Your task to perform on an android device: change timer sound Image 0: 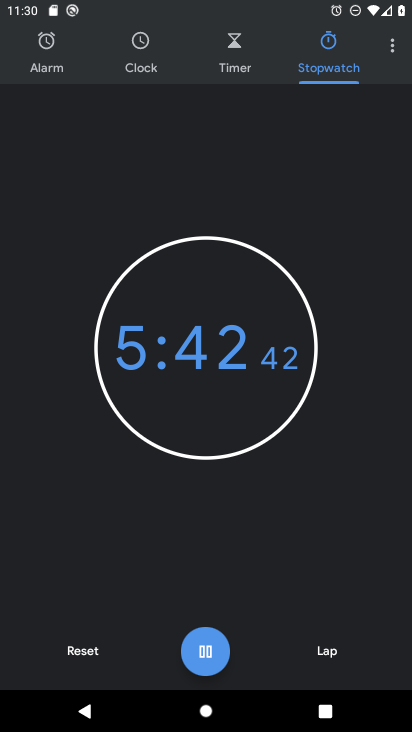
Step 0: press back button
Your task to perform on an android device: change timer sound Image 1: 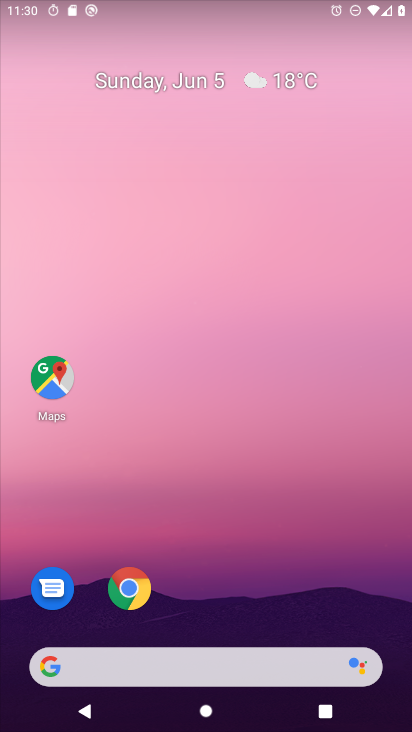
Step 1: drag from (352, 581) to (357, 195)
Your task to perform on an android device: change timer sound Image 2: 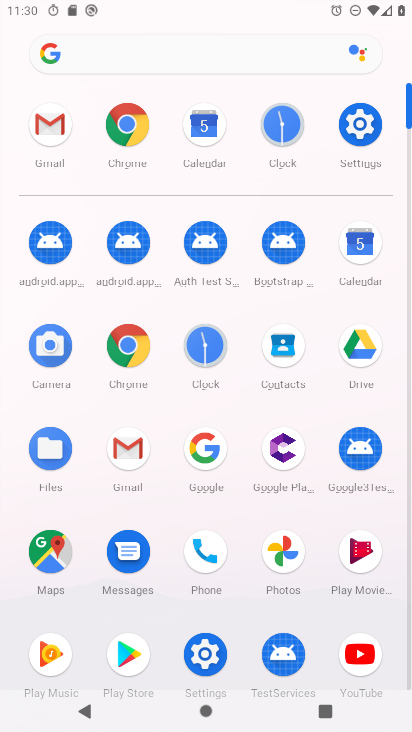
Step 2: click (207, 353)
Your task to perform on an android device: change timer sound Image 3: 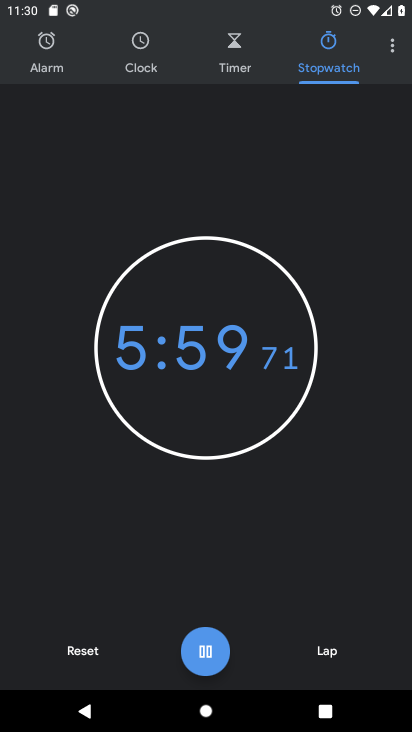
Step 3: click (398, 43)
Your task to perform on an android device: change timer sound Image 4: 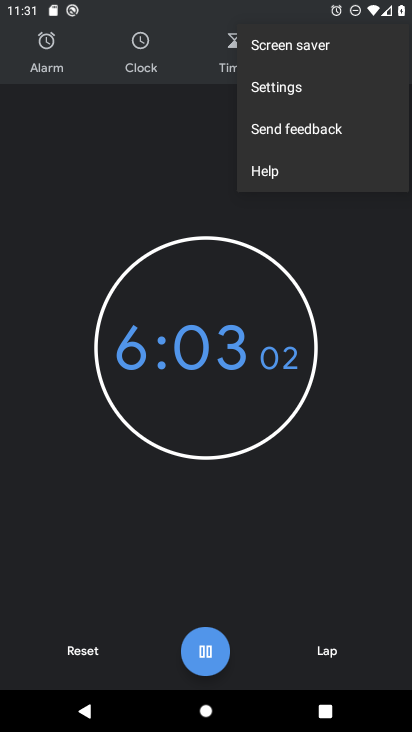
Step 4: click (300, 87)
Your task to perform on an android device: change timer sound Image 5: 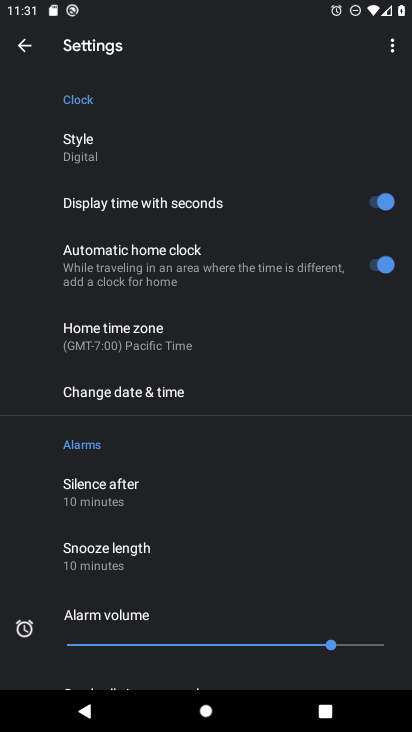
Step 5: drag from (295, 424) to (299, 246)
Your task to perform on an android device: change timer sound Image 6: 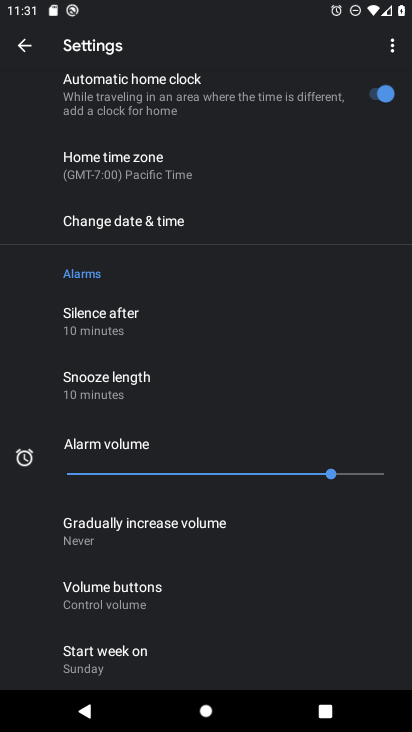
Step 6: drag from (307, 455) to (319, 217)
Your task to perform on an android device: change timer sound Image 7: 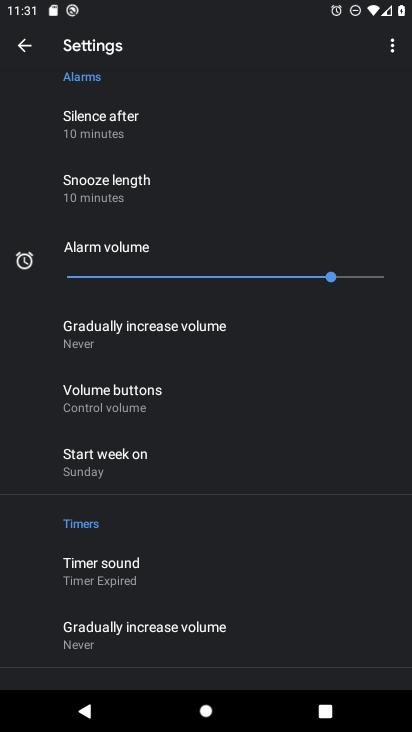
Step 7: drag from (312, 469) to (321, 221)
Your task to perform on an android device: change timer sound Image 8: 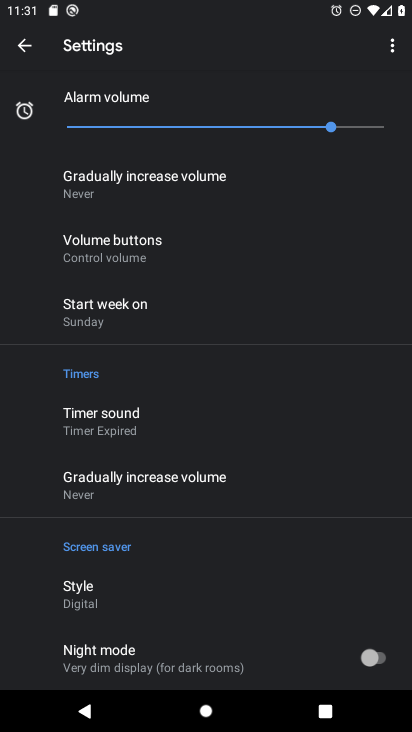
Step 8: drag from (307, 496) to (315, 328)
Your task to perform on an android device: change timer sound Image 9: 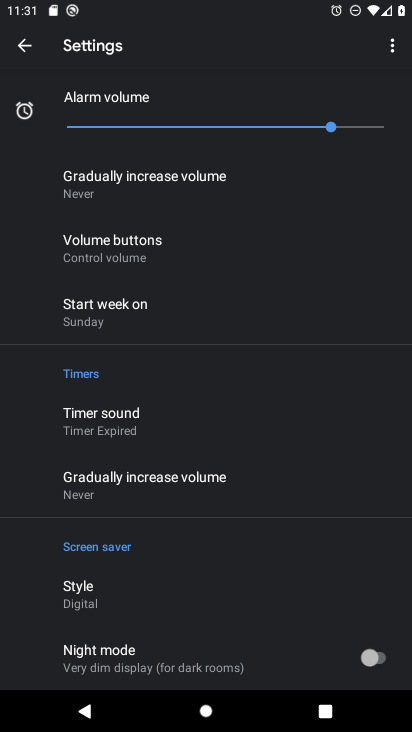
Step 9: click (113, 421)
Your task to perform on an android device: change timer sound Image 10: 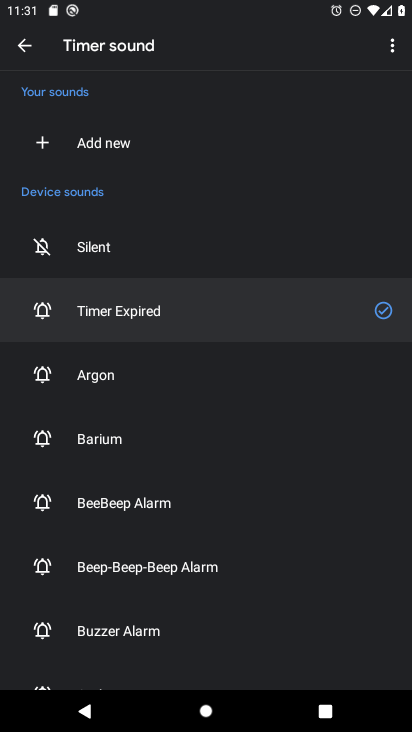
Step 10: click (112, 438)
Your task to perform on an android device: change timer sound Image 11: 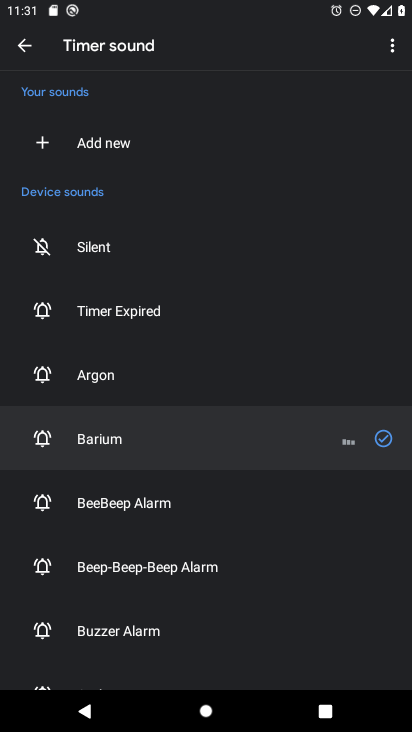
Step 11: task complete